Your task to perform on an android device: Open internet settings Image 0: 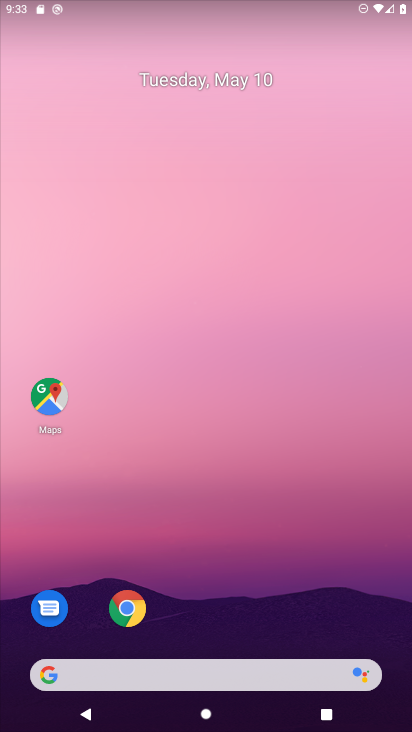
Step 0: drag from (392, 627) to (272, 23)
Your task to perform on an android device: Open internet settings Image 1: 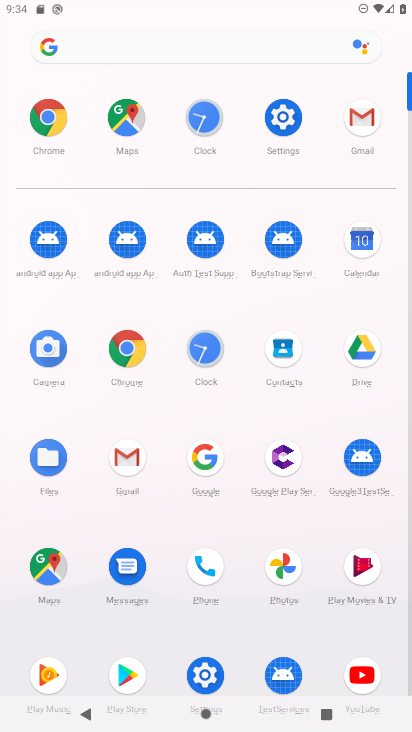
Step 1: click (202, 672)
Your task to perform on an android device: Open internet settings Image 2: 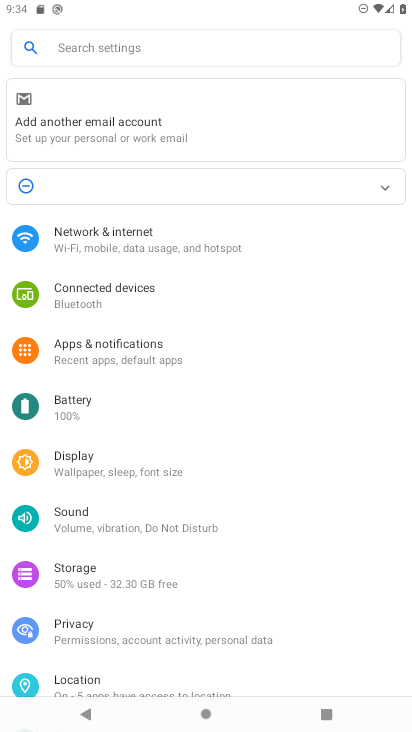
Step 2: click (134, 258)
Your task to perform on an android device: Open internet settings Image 3: 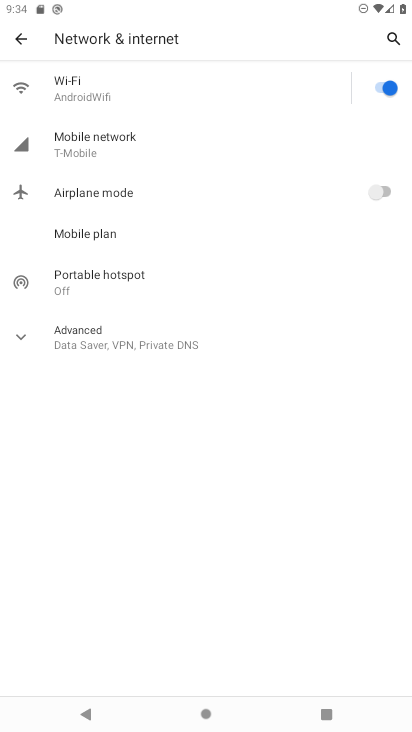
Step 3: task complete